Your task to perform on an android device: change notification settings in the gmail app Image 0: 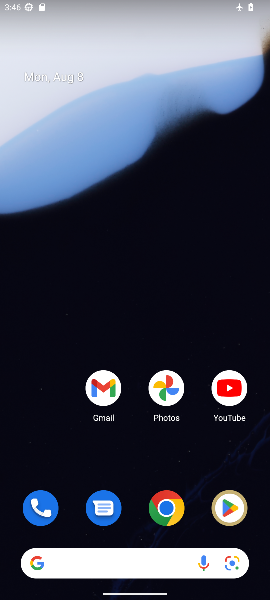
Step 0: click (103, 393)
Your task to perform on an android device: change notification settings in the gmail app Image 1: 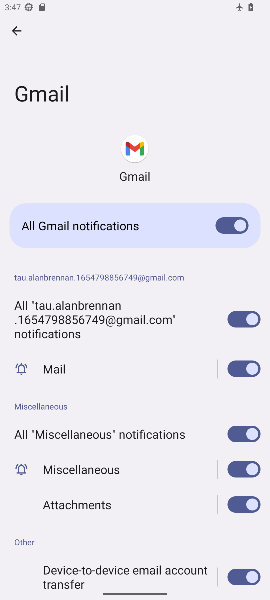
Step 1: click (243, 219)
Your task to perform on an android device: change notification settings in the gmail app Image 2: 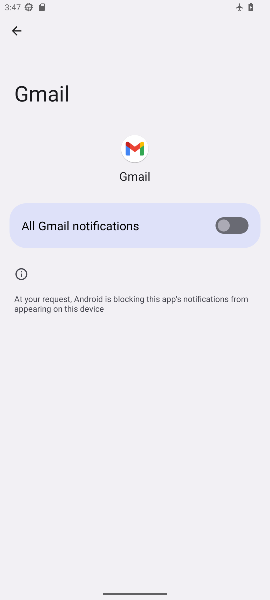
Step 2: task complete